Your task to perform on an android device: What is the capital of India? Image 0: 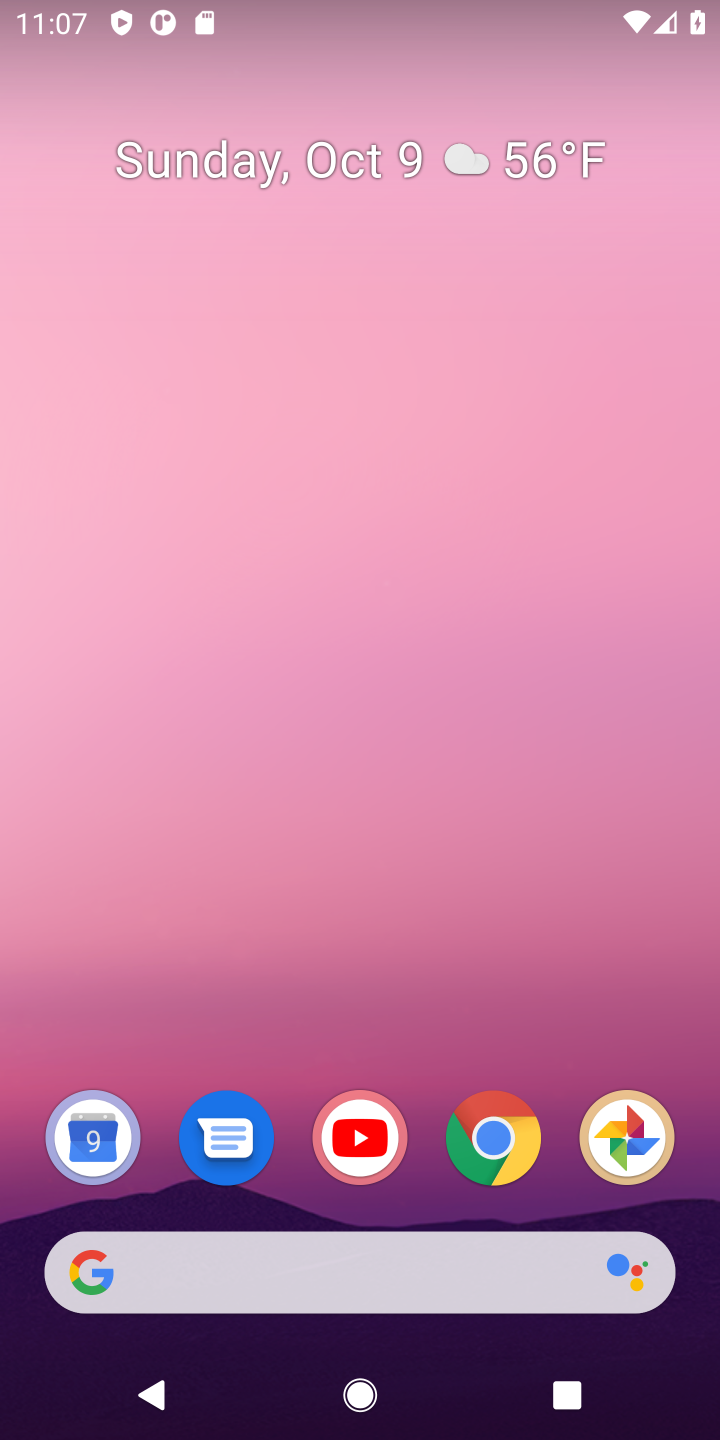
Step 0: drag from (435, 985) to (458, 4)
Your task to perform on an android device: What is the capital of India? Image 1: 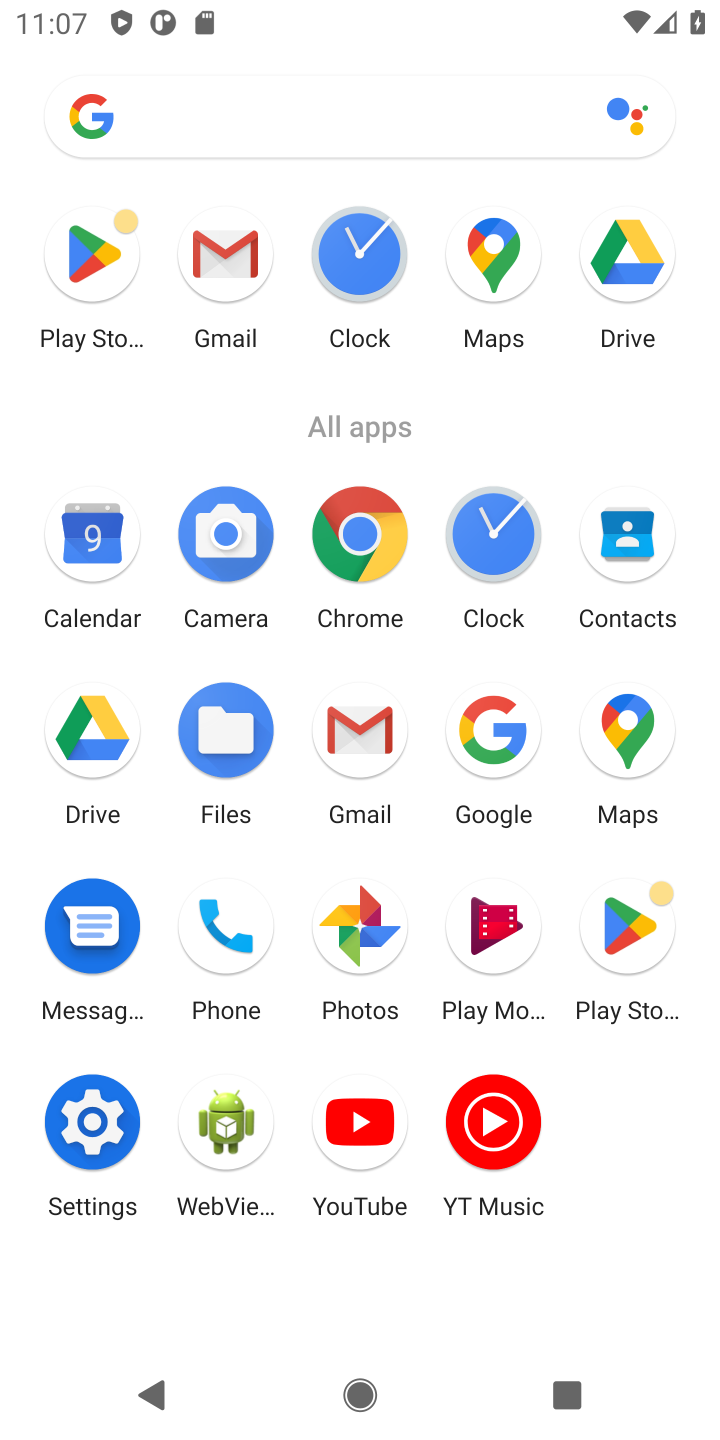
Step 1: click (366, 543)
Your task to perform on an android device: What is the capital of India? Image 2: 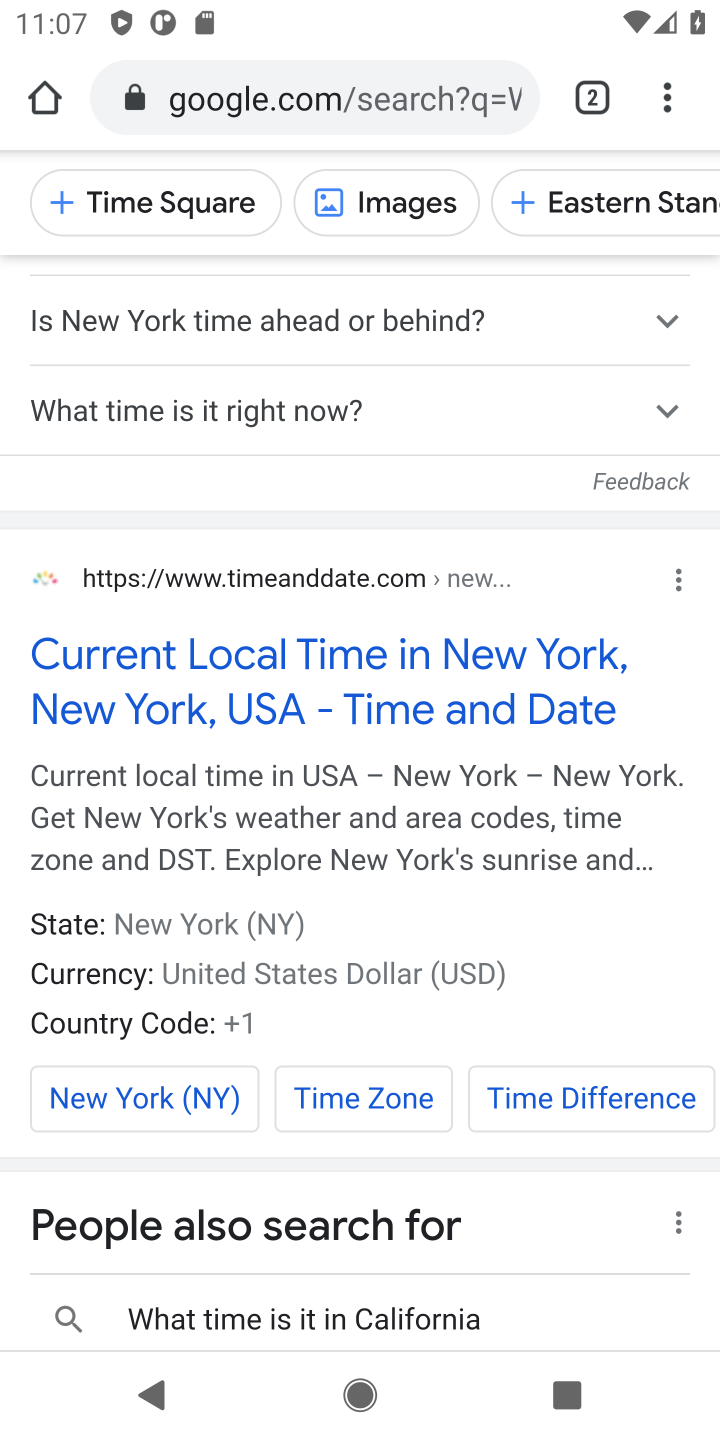
Step 2: drag from (416, 279) to (344, 1196)
Your task to perform on an android device: What is the capital of India? Image 3: 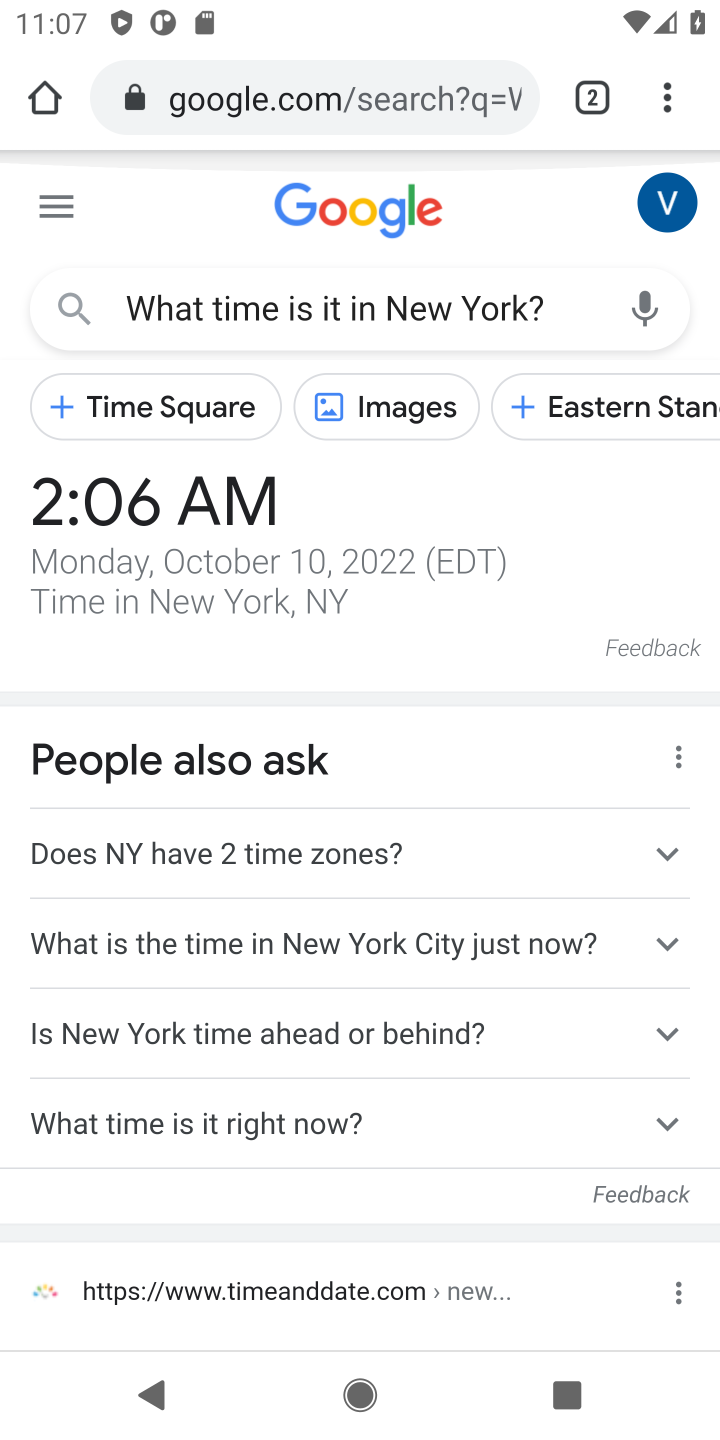
Step 3: click (347, 90)
Your task to perform on an android device: What is the capital of India? Image 4: 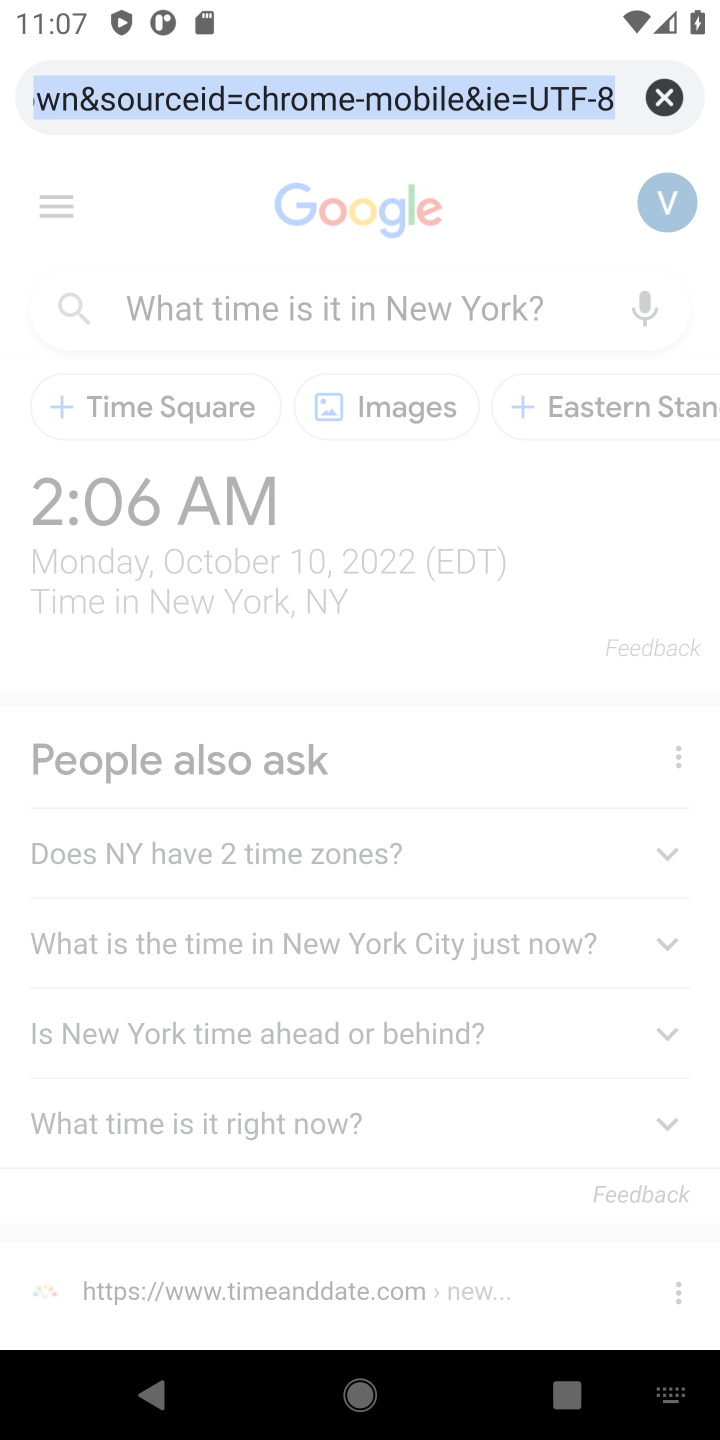
Step 4: click (656, 91)
Your task to perform on an android device: What is the capital of India? Image 5: 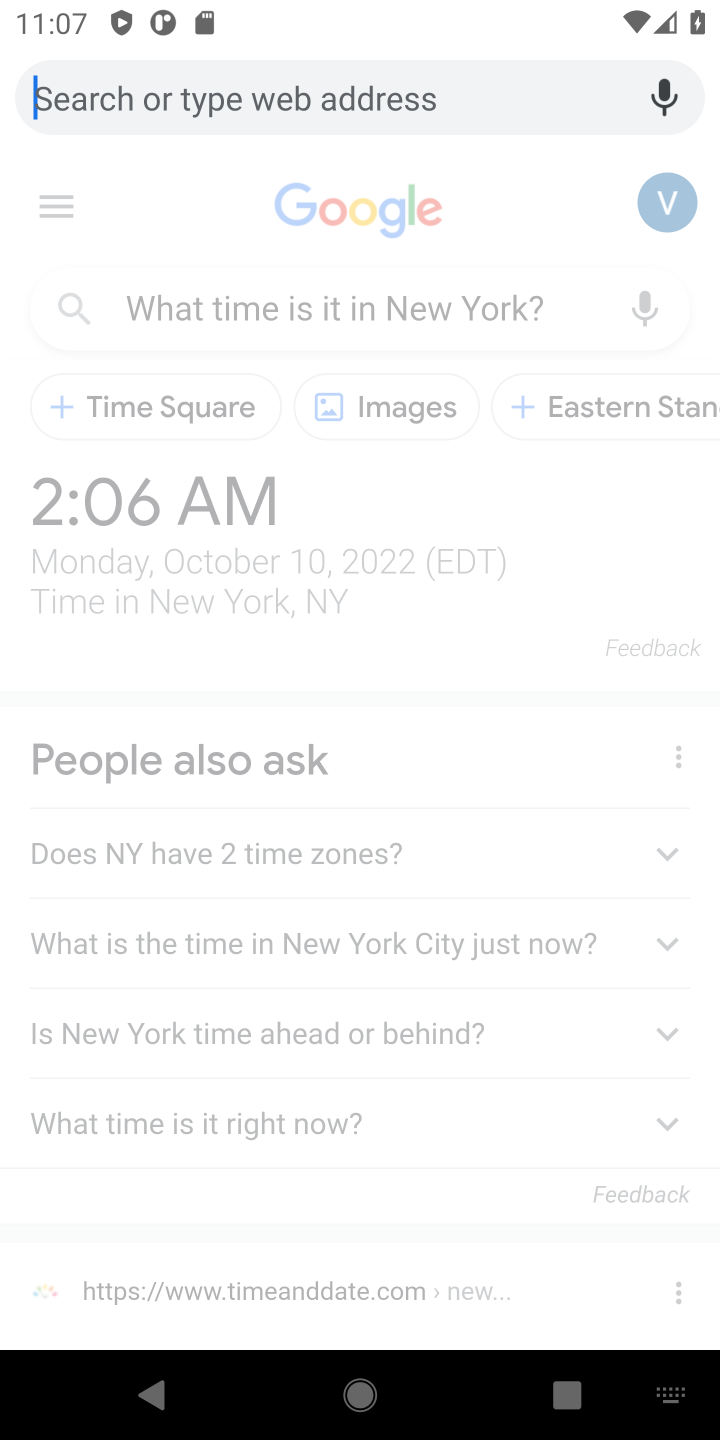
Step 5: type "What is the capital of India?"
Your task to perform on an android device: What is the capital of India? Image 6: 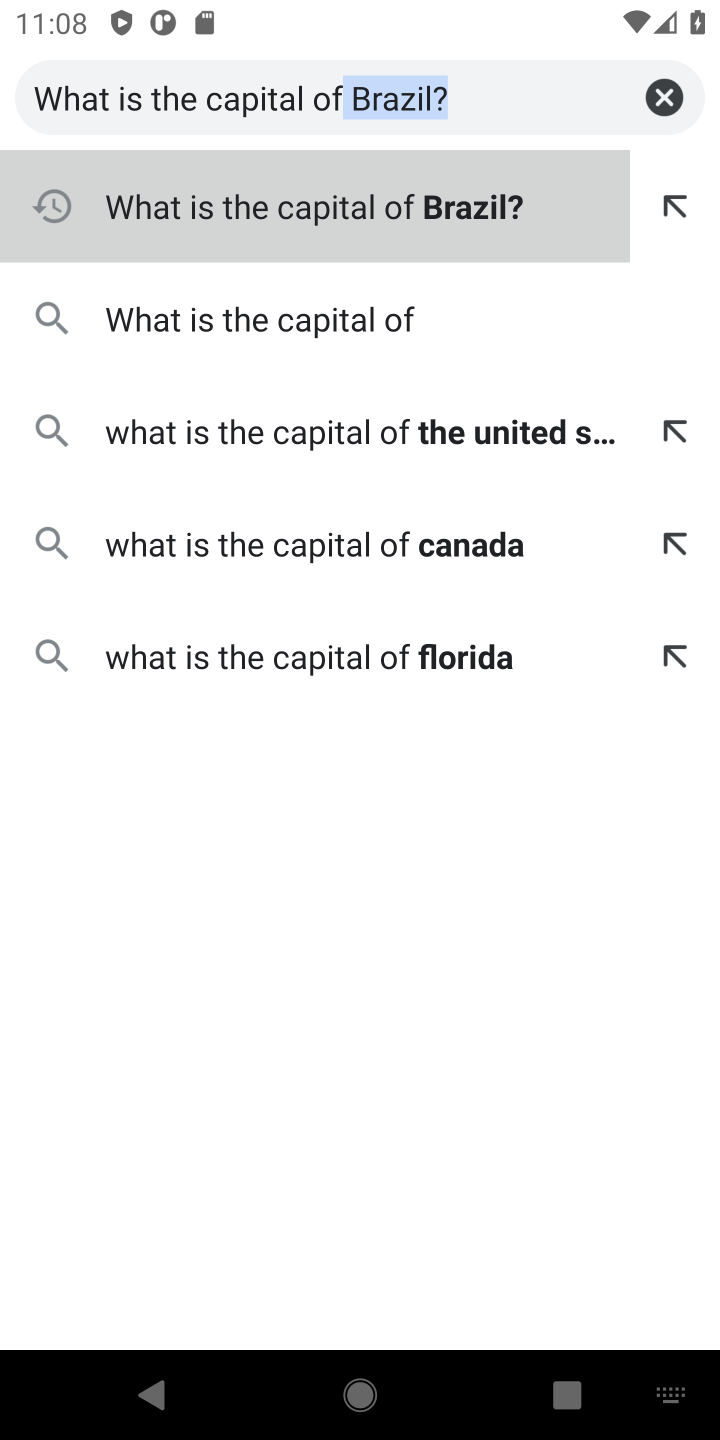
Step 6: click (263, 202)
Your task to perform on an android device: What is the capital of India? Image 7: 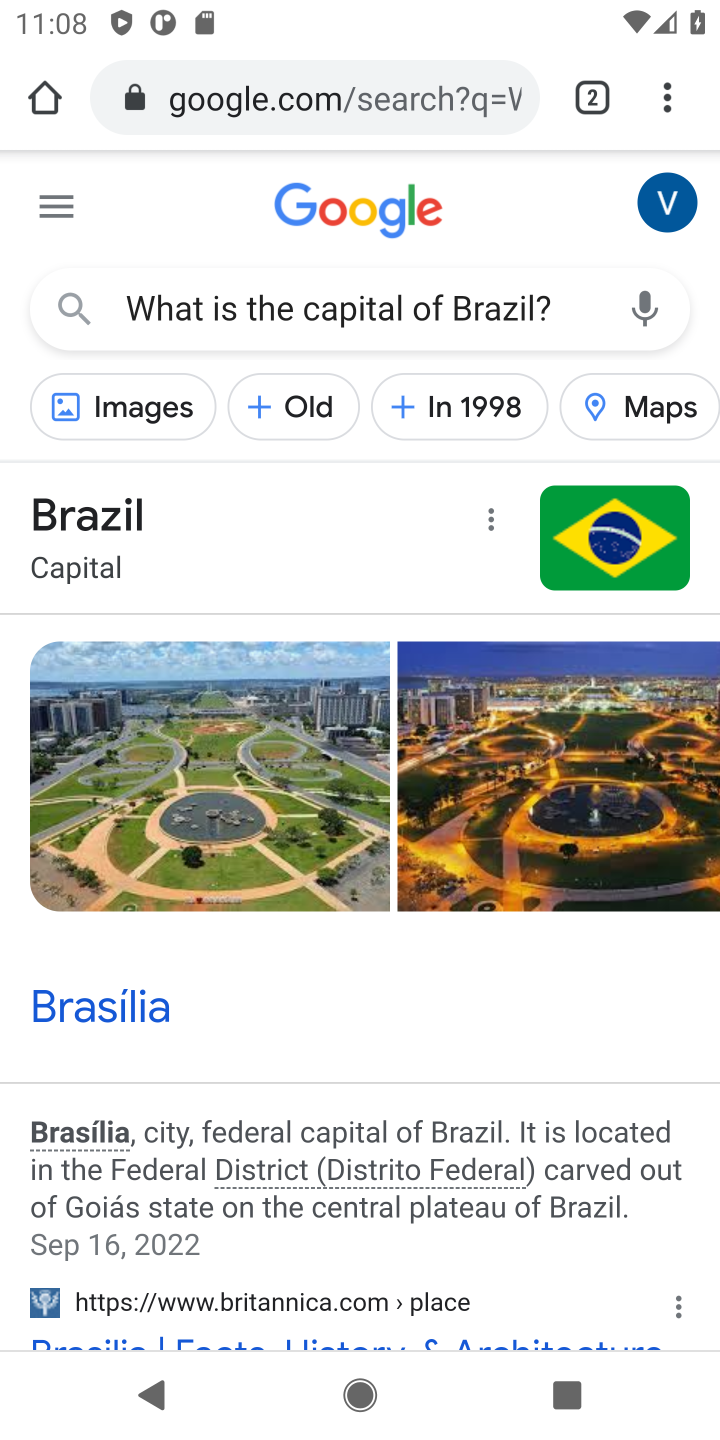
Step 7: task complete